Your task to perform on an android device: Clear the cart on costco. Add beats solo 3 to the cart on costco, then select checkout. Image 0: 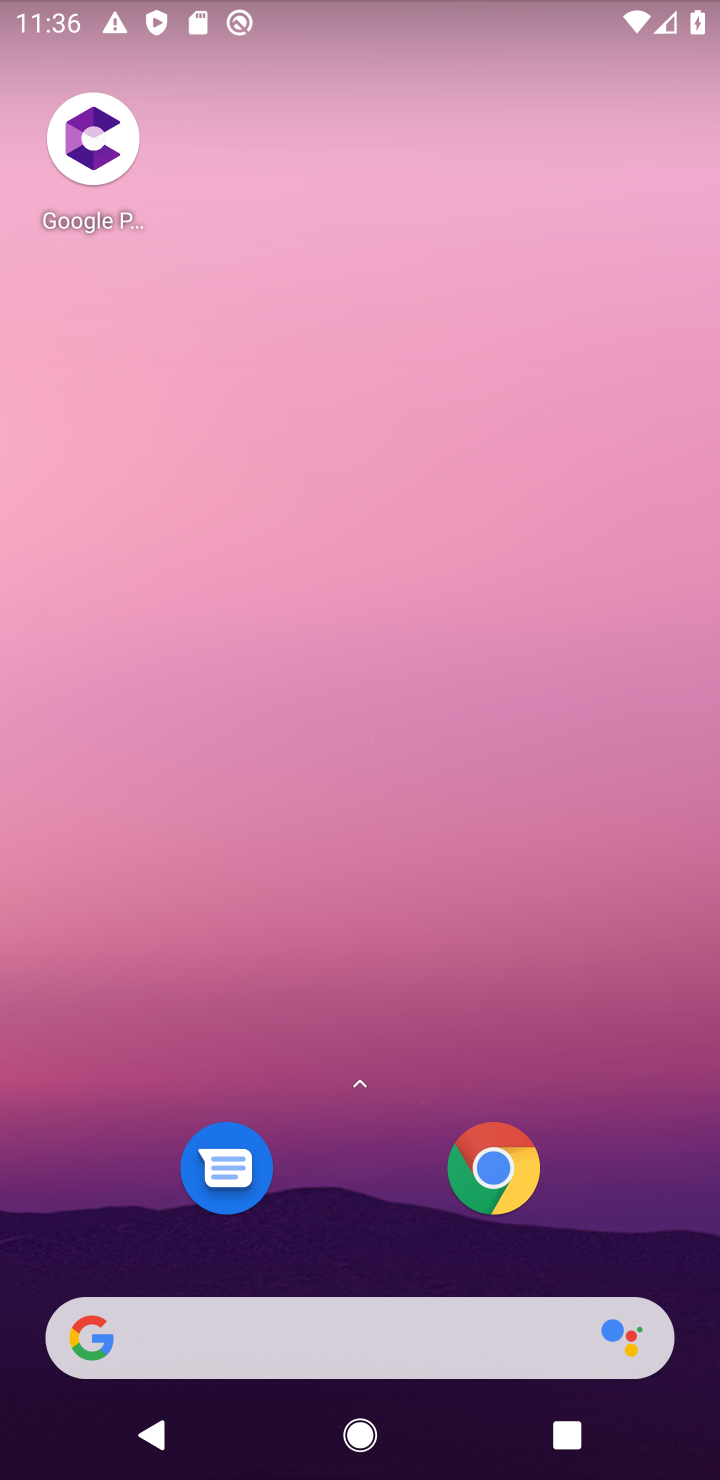
Step 0: drag from (422, 1172) to (380, 58)
Your task to perform on an android device: Clear the cart on costco. Add beats solo 3 to the cart on costco, then select checkout. Image 1: 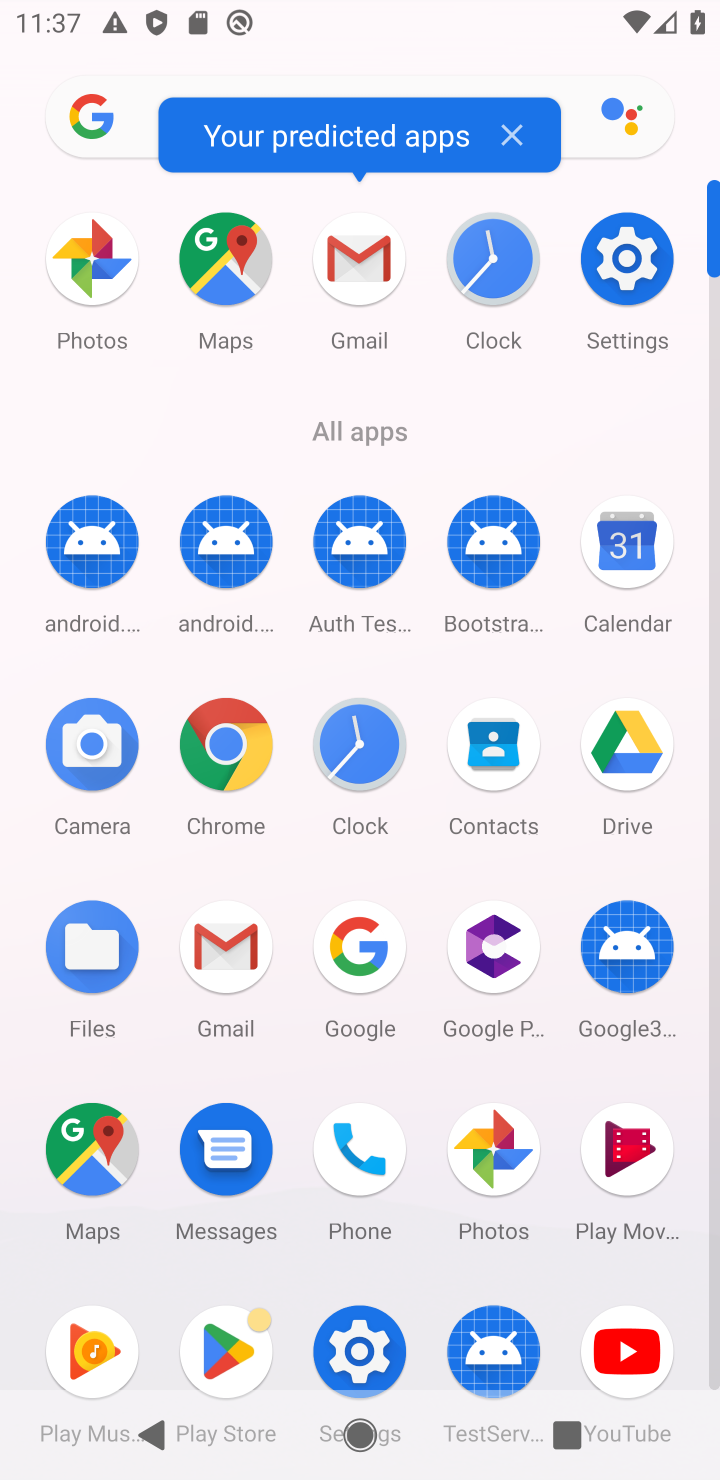
Step 1: click (217, 747)
Your task to perform on an android device: Clear the cart on costco. Add beats solo 3 to the cart on costco, then select checkout. Image 2: 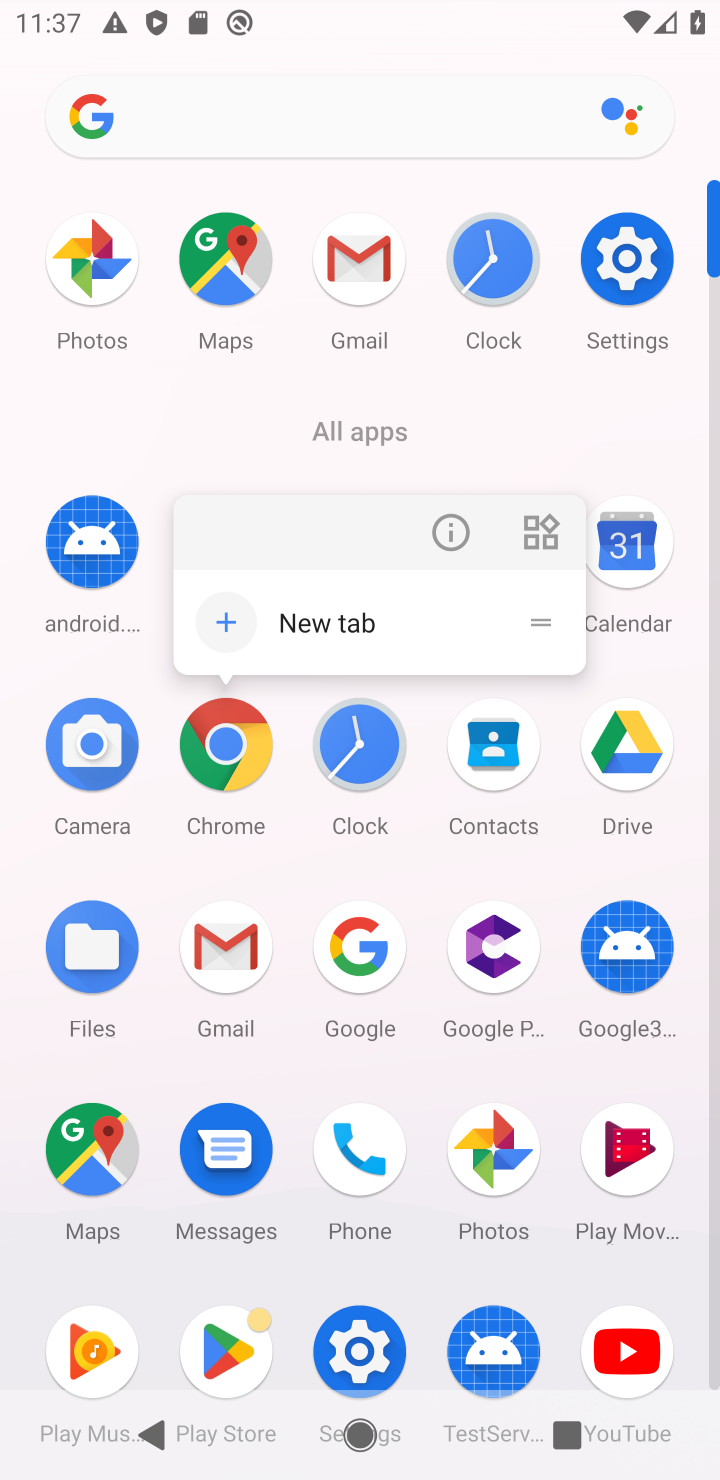
Step 2: click (228, 748)
Your task to perform on an android device: Clear the cart on costco. Add beats solo 3 to the cart on costco, then select checkout. Image 3: 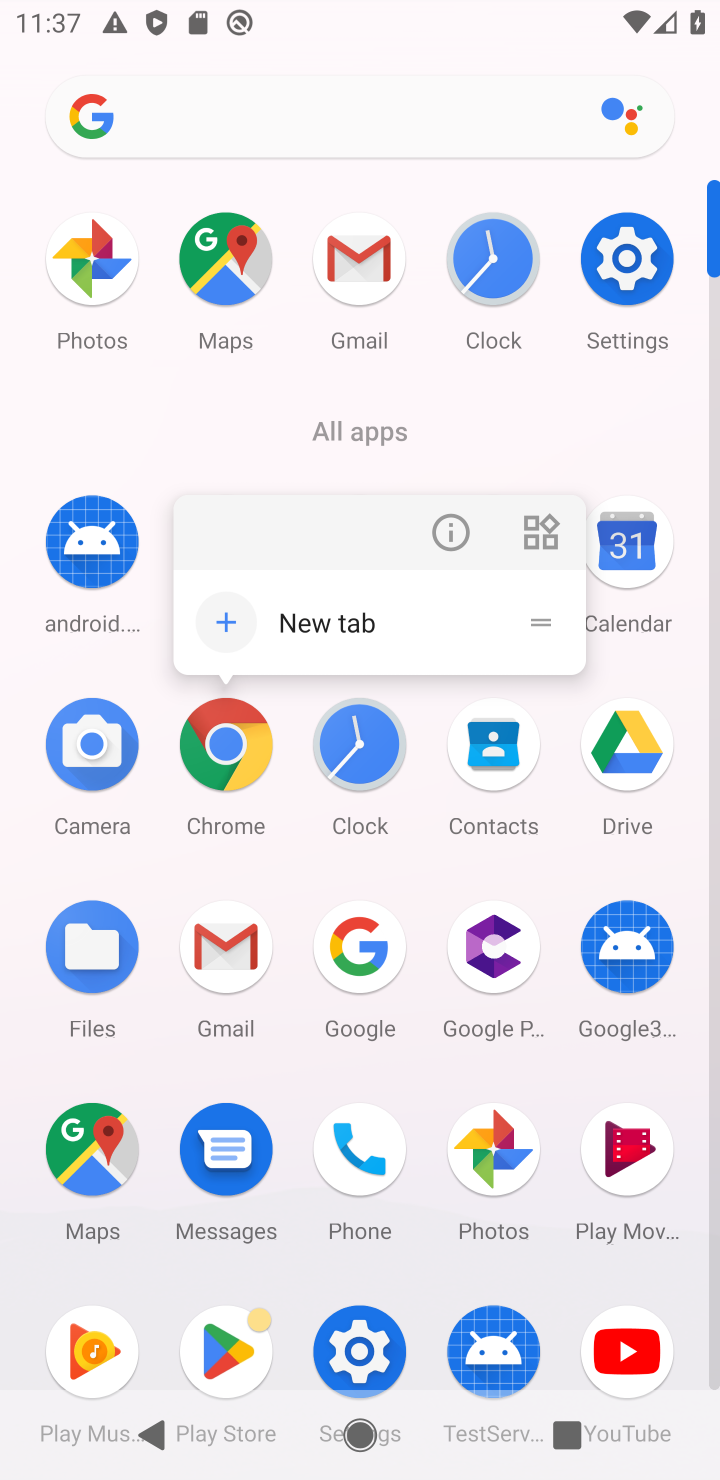
Step 3: click (232, 746)
Your task to perform on an android device: Clear the cart on costco. Add beats solo 3 to the cart on costco, then select checkout. Image 4: 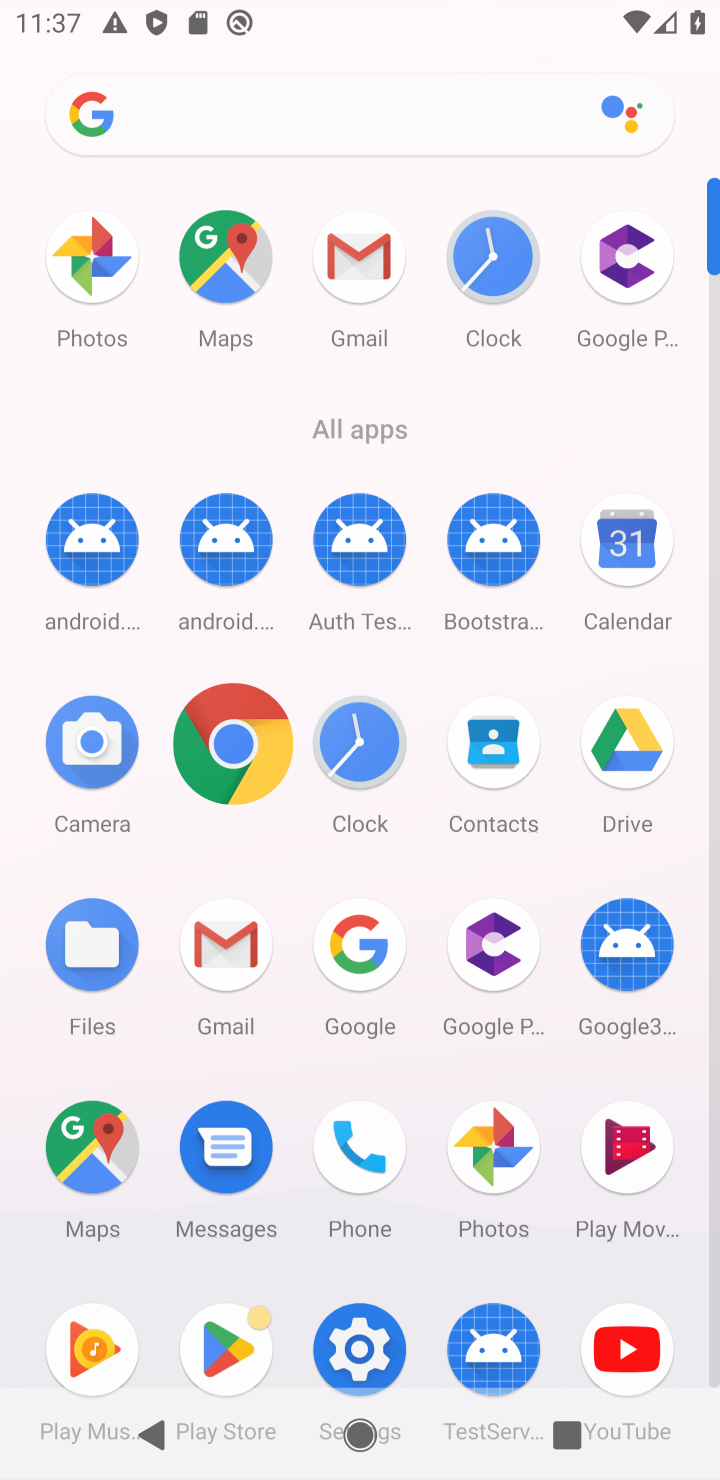
Step 4: click (217, 703)
Your task to perform on an android device: Clear the cart on costco. Add beats solo 3 to the cart on costco, then select checkout. Image 5: 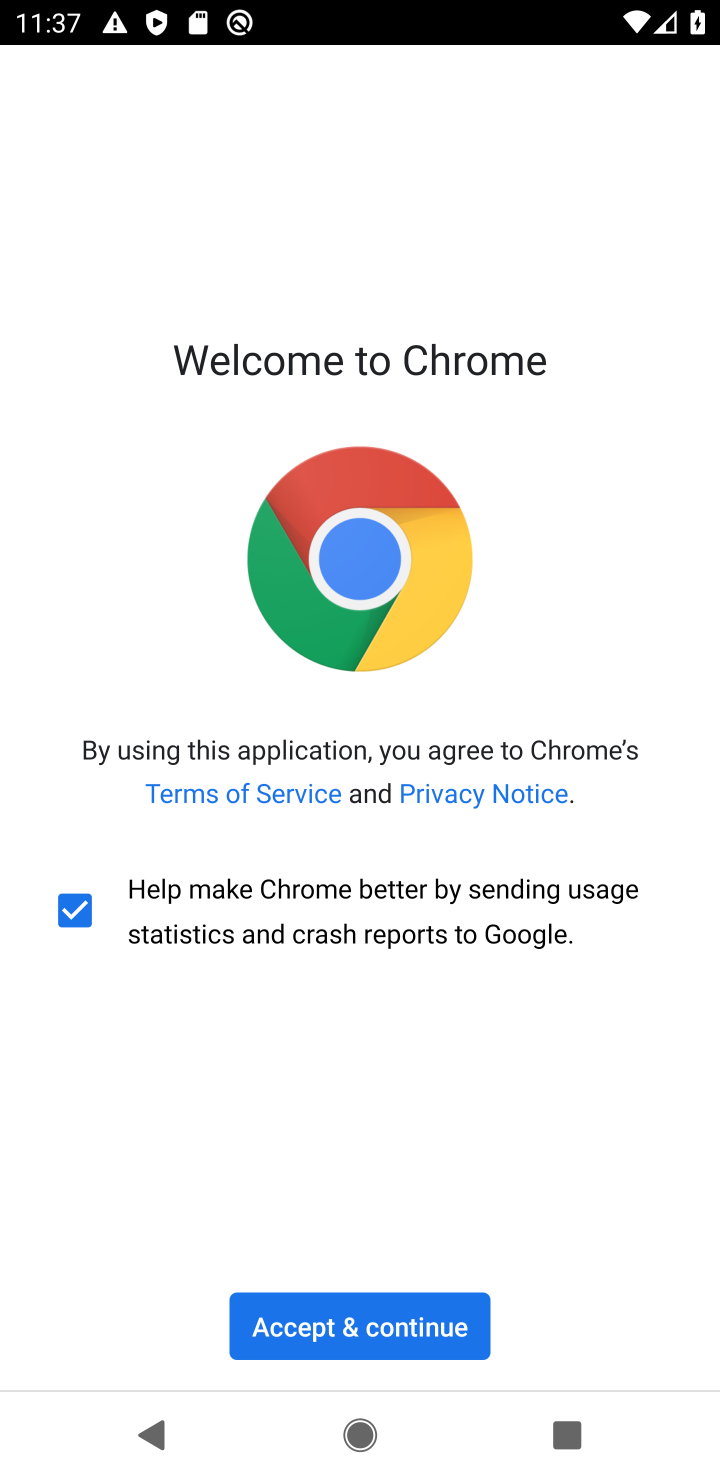
Step 5: click (409, 1313)
Your task to perform on an android device: Clear the cart on costco. Add beats solo 3 to the cart on costco, then select checkout. Image 6: 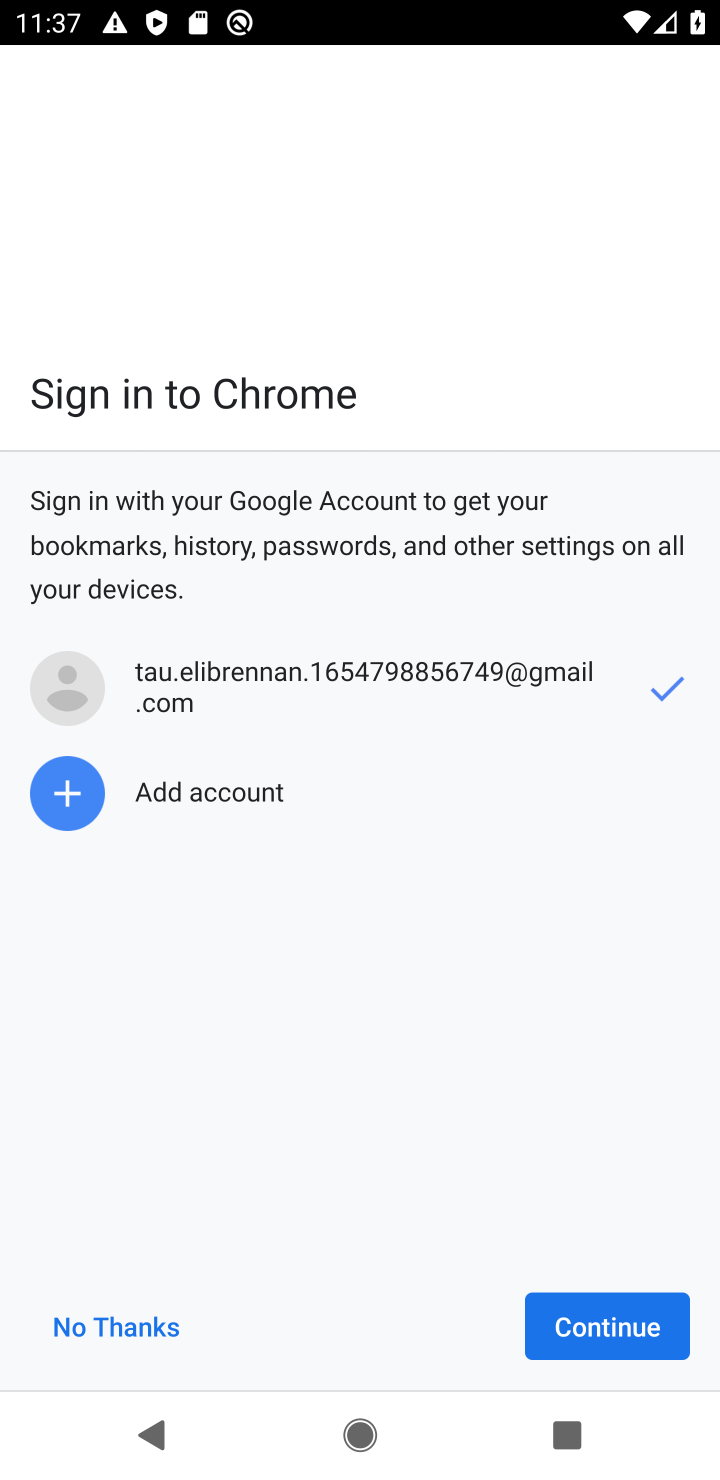
Step 6: click (609, 1319)
Your task to perform on an android device: Clear the cart on costco. Add beats solo 3 to the cart on costco, then select checkout. Image 7: 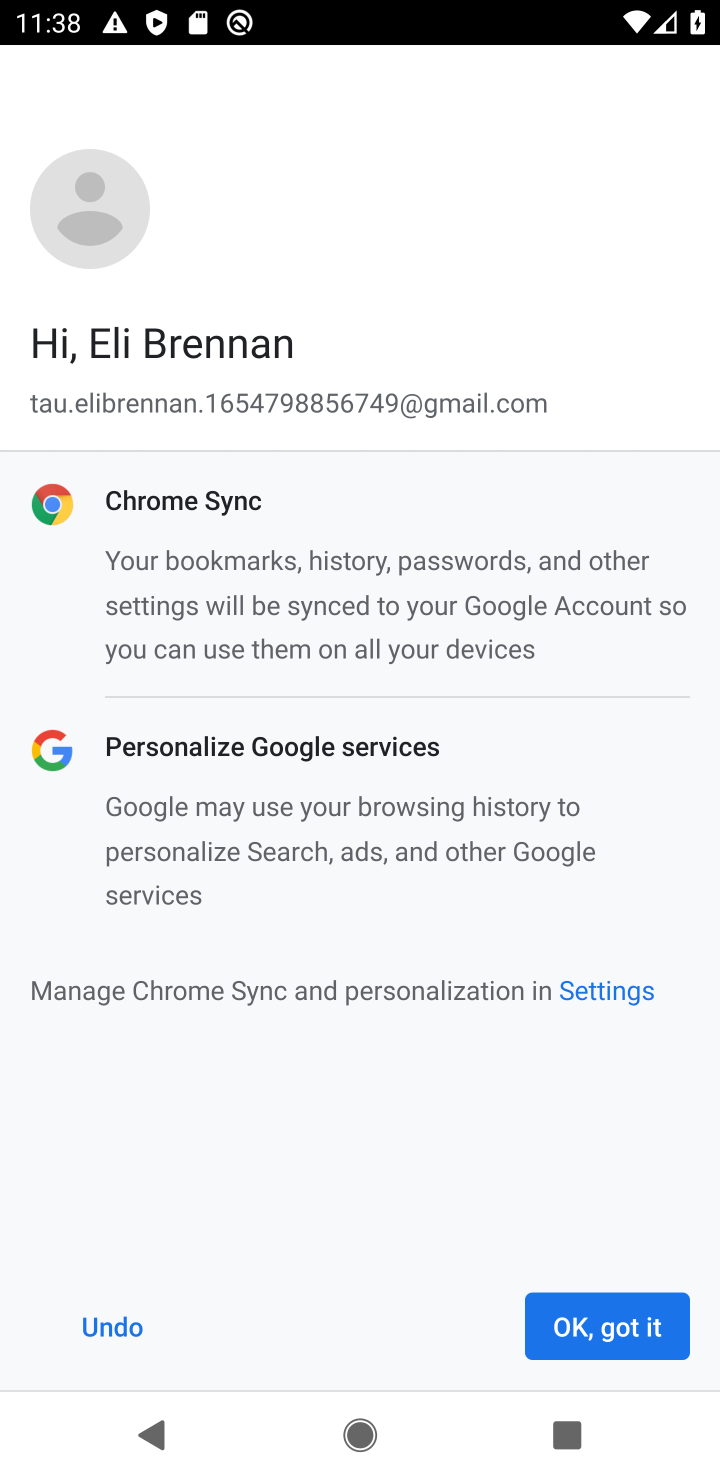
Step 7: click (641, 1312)
Your task to perform on an android device: Clear the cart on costco. Add beats solo 3 to the cart on costco, then select checkout. Image 8: 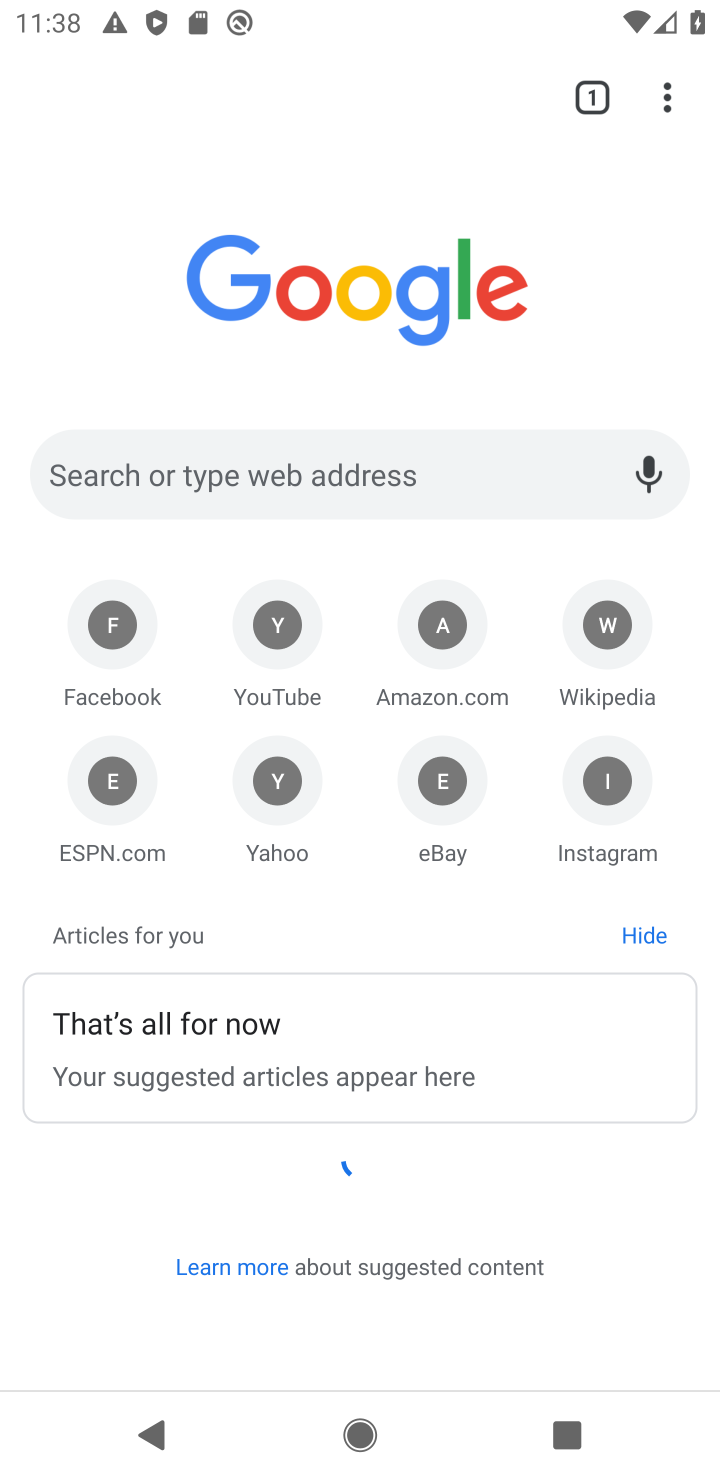
Step 8: click (337, 457)
Your task to perform on an android device: Clear the cart on costco. Add beats solo 3 to the cart on costco, then select checkout. Image 9: 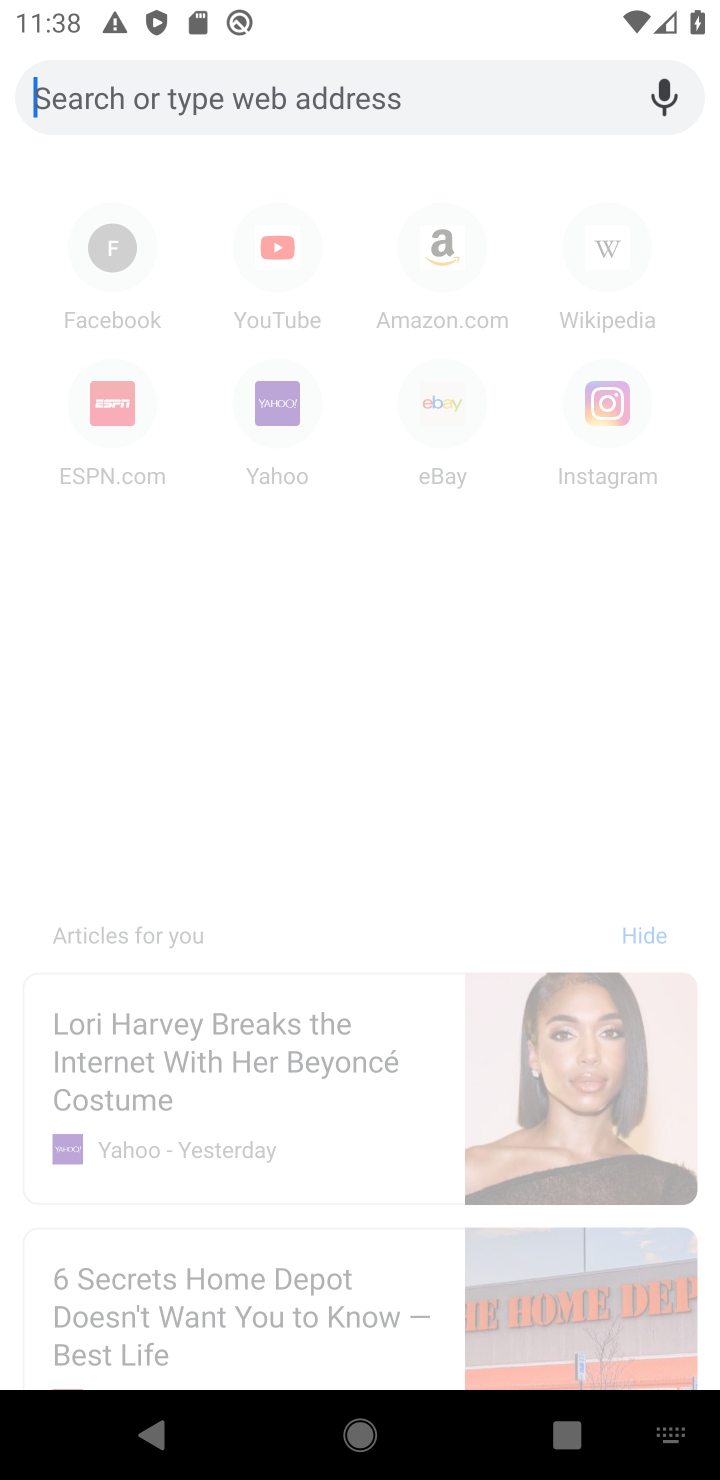
Step 9: type "costco"
Your task to perform on an android device: Clear the cart on costco. Add beats solo 3 to the cart on costco, then select checkout. Image 10: 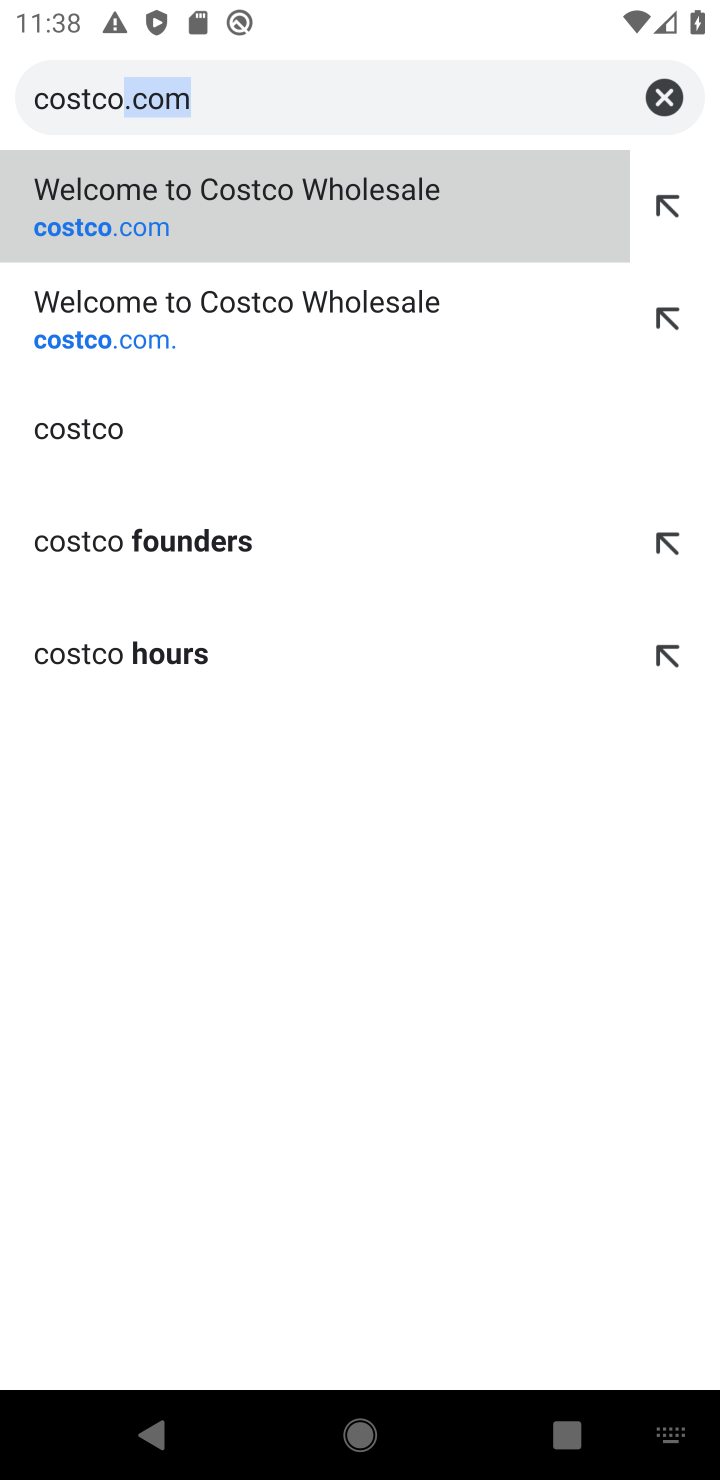
Step 10: click (86, 220)
Your task to perform on an android device: Clear the cart on costco. Add beats solo 3 to the cart on costco, then select checkout. Image 11: 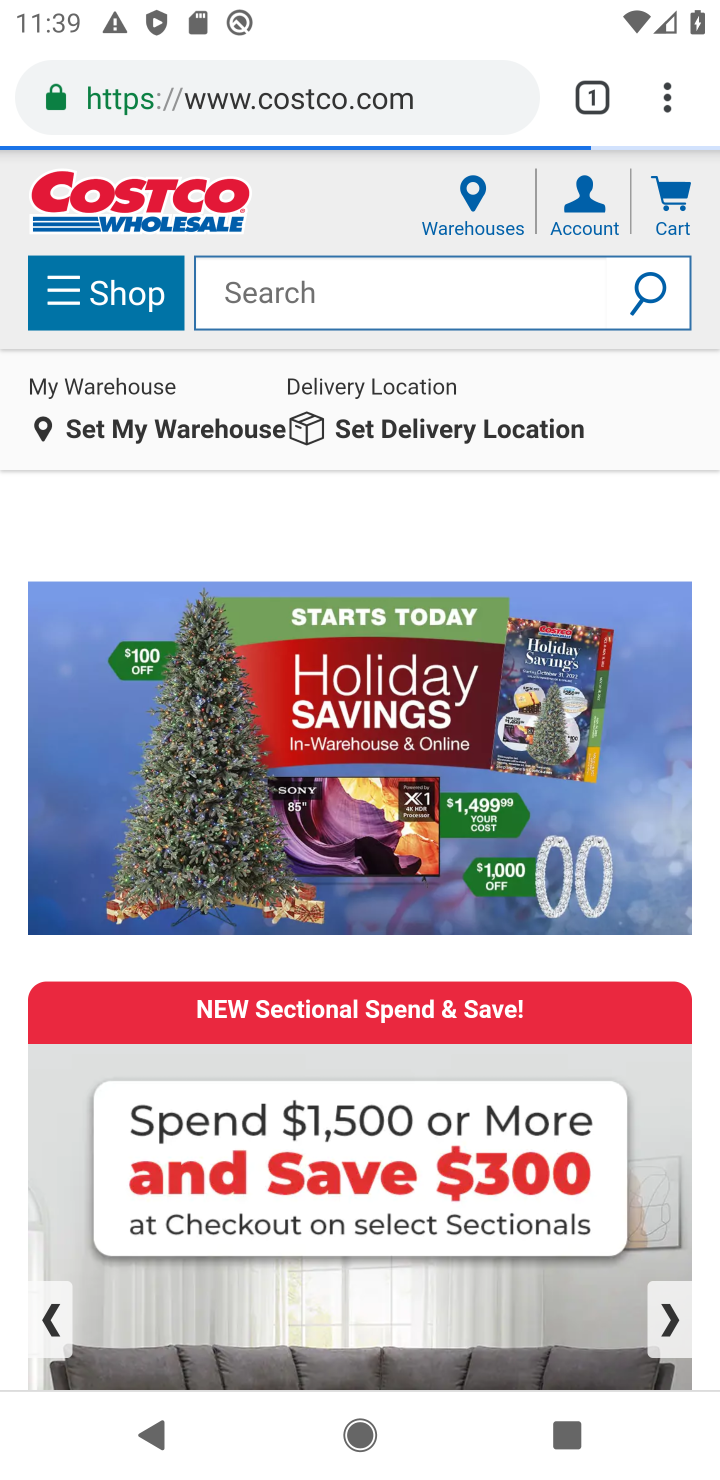
Step 11: click (255, 282)
Your task to perform on an android device: Clear the cart on costco. Add beats solo 3 to the cart on costco, then select checkout. Image 12: 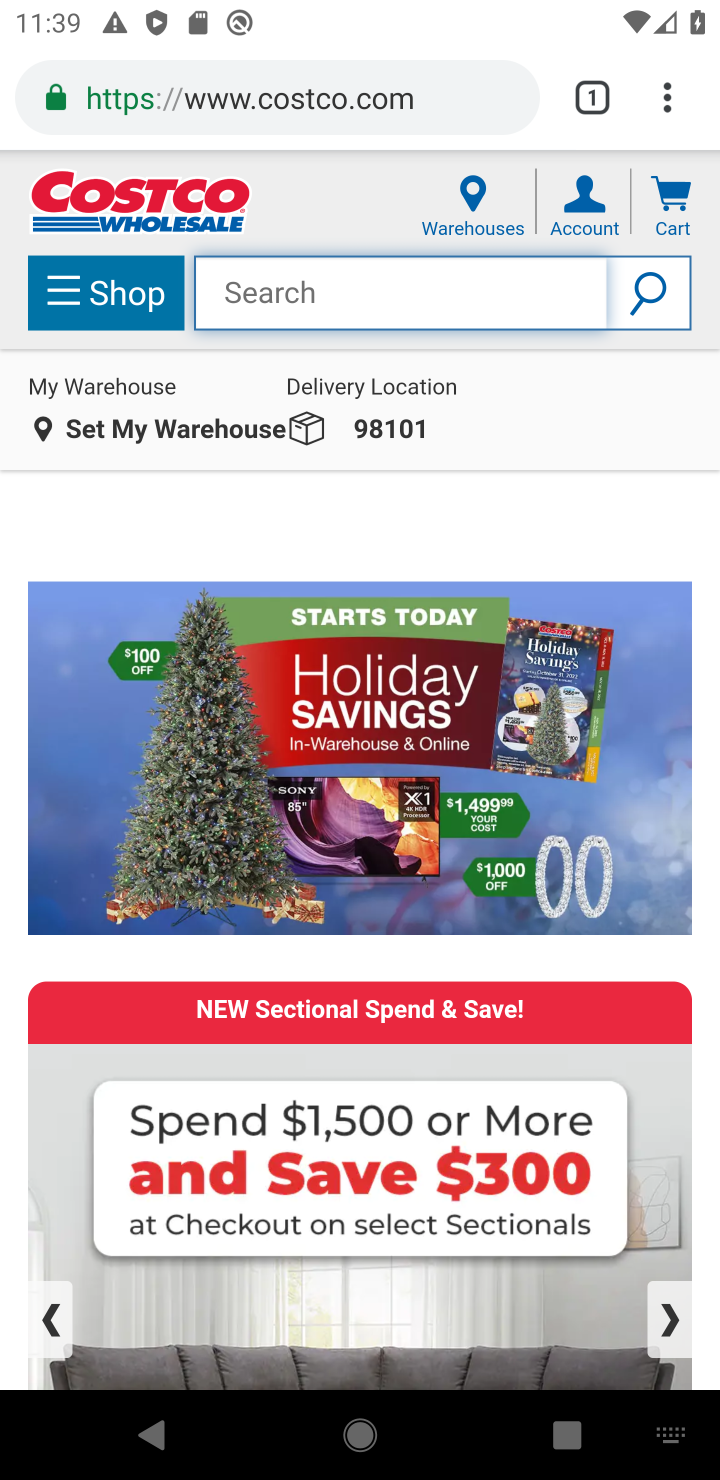
Step 12: click (672, 196)
Your task to perform on an android device: Clear the cart on costco. Add beats solo 3 to the cart on costco, then select checkout. Image 13: 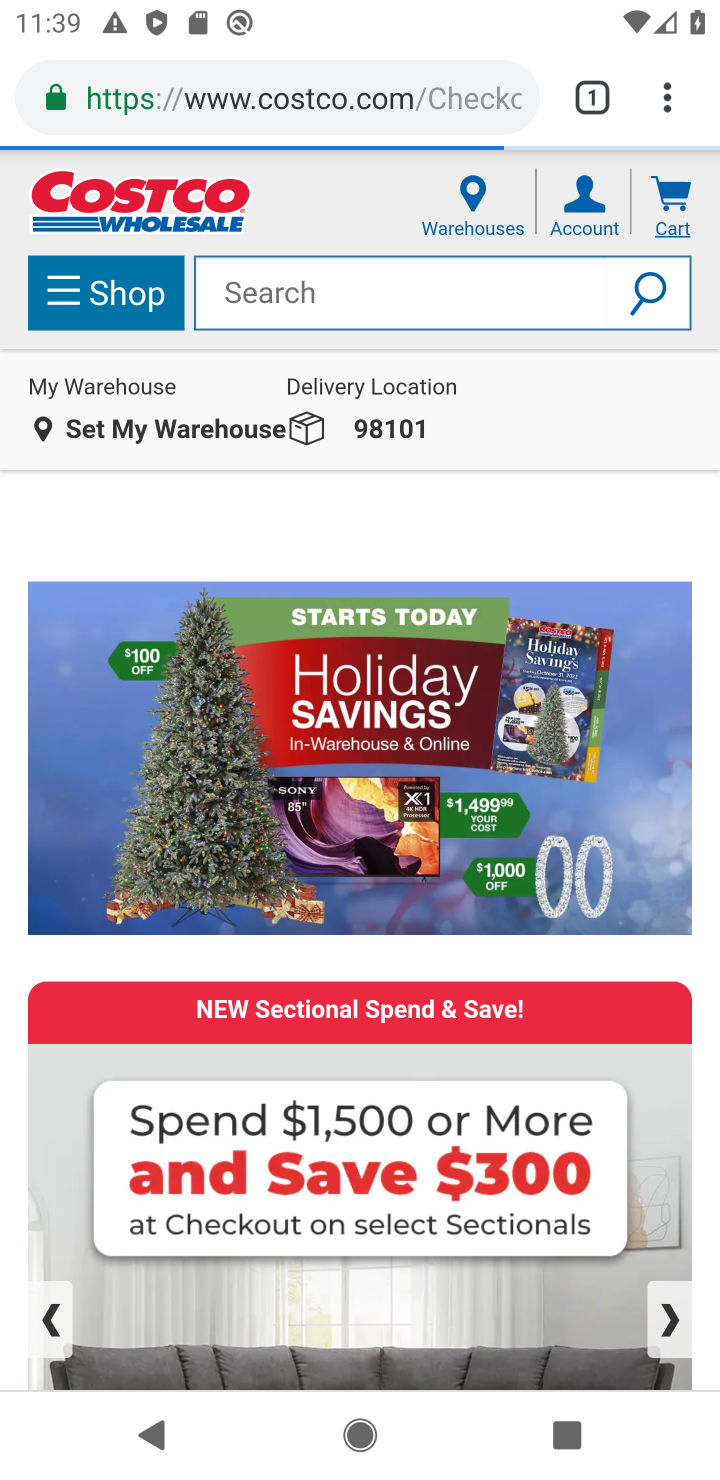
Step 13: click (667, 183)
Your task to perform on an android device: Clear the cart on costco. Add beats solo 3 to the cart on costco, then select checkout. Image 14: 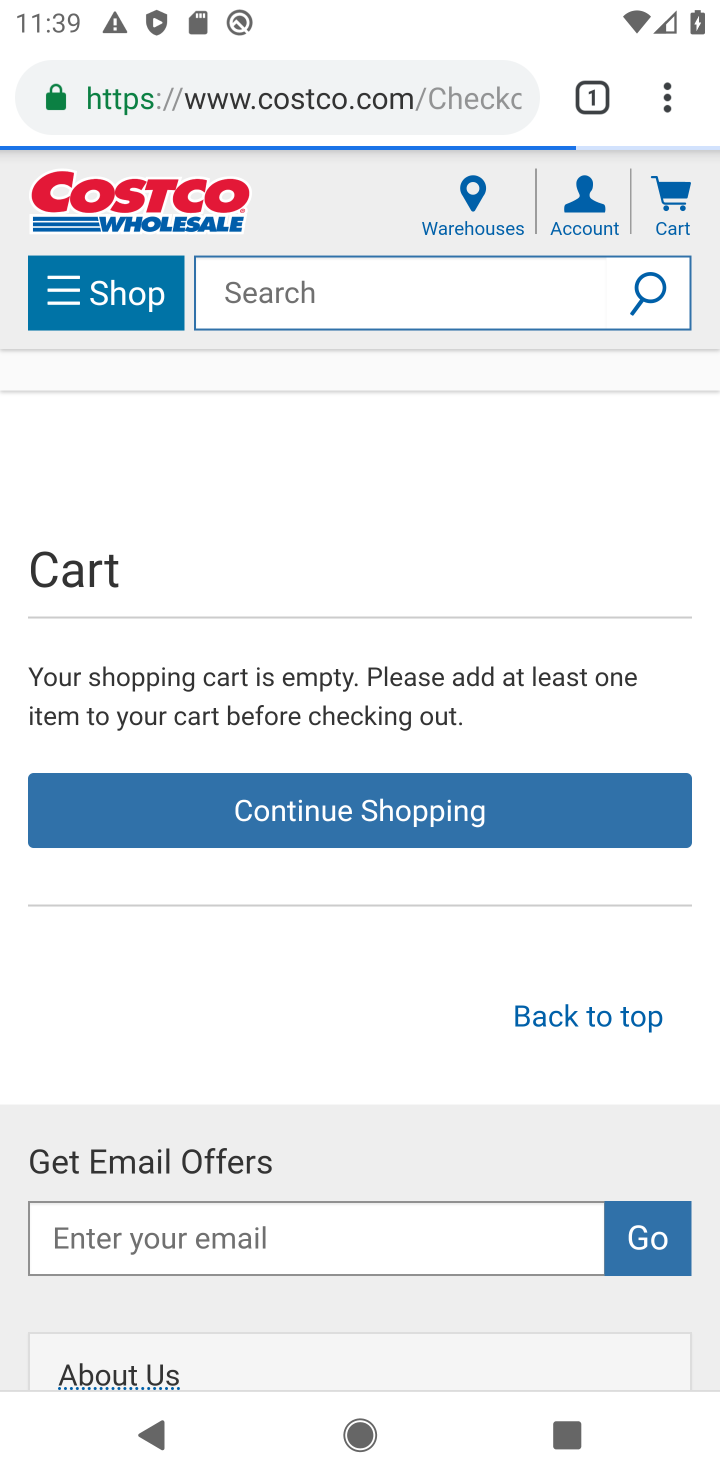
Step 14: drag from (433, 1007) to (535, 328)
Your task to perform on an android device: Clear the cart on costco. Add beats solo 3 to the cart on costco, then select checkout. Image 15: 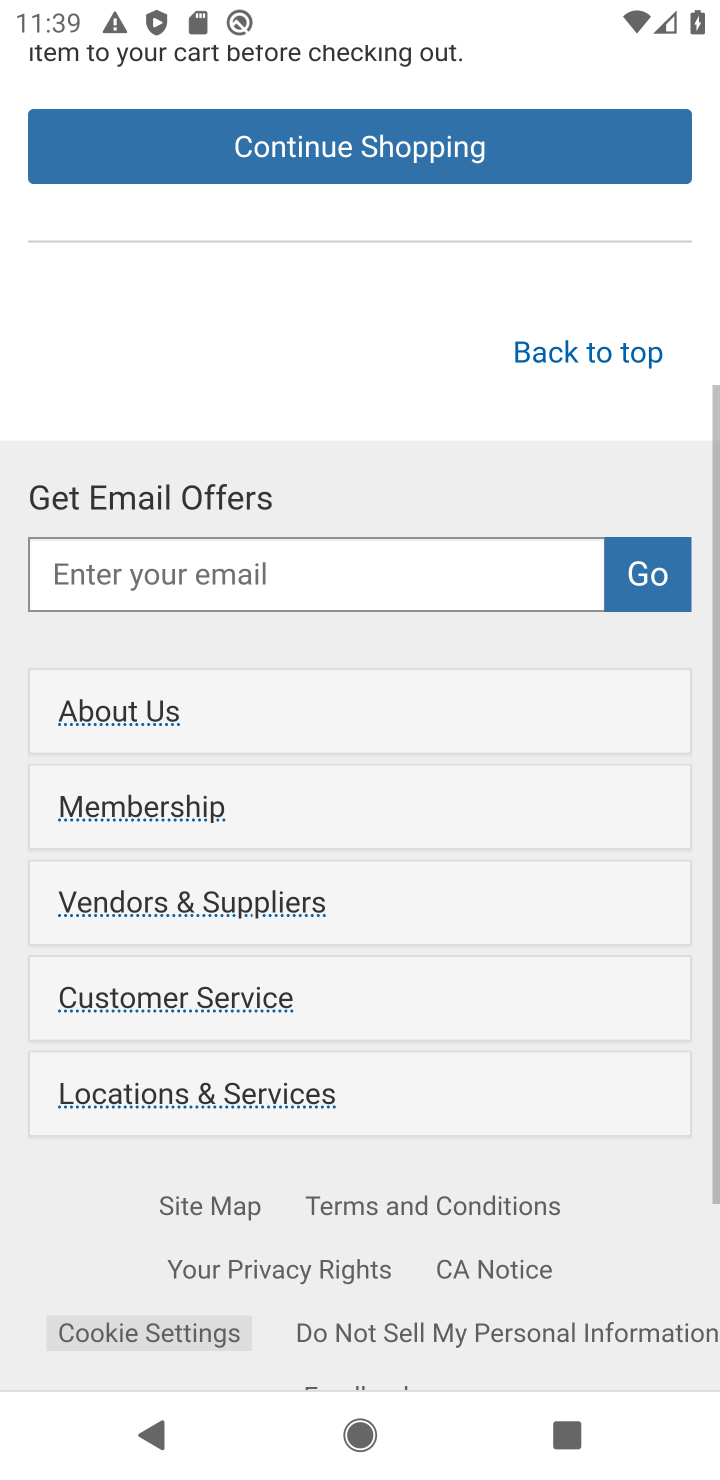
Step 15: click (451, 199)
Your task to perform on an android device: Clear the cart on costco. Add beats solo 3 to the cart on costco, then select checkout. Image 16: 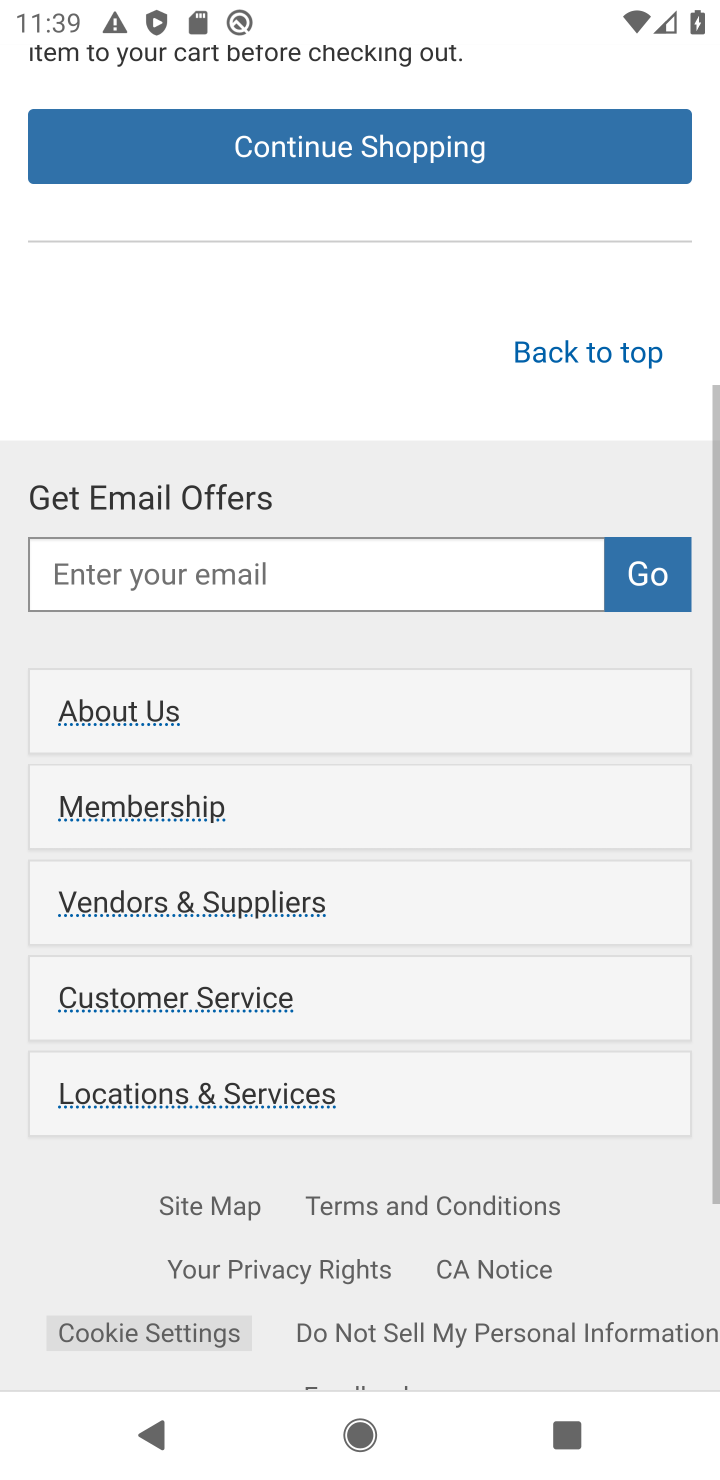
Step 16: drag from (449, 199) to (321, 1173)
Your task to perform on an android device: Clear the cart on costco. Add beats solo 3 to the cart on costco, then select checkout. Image 17: 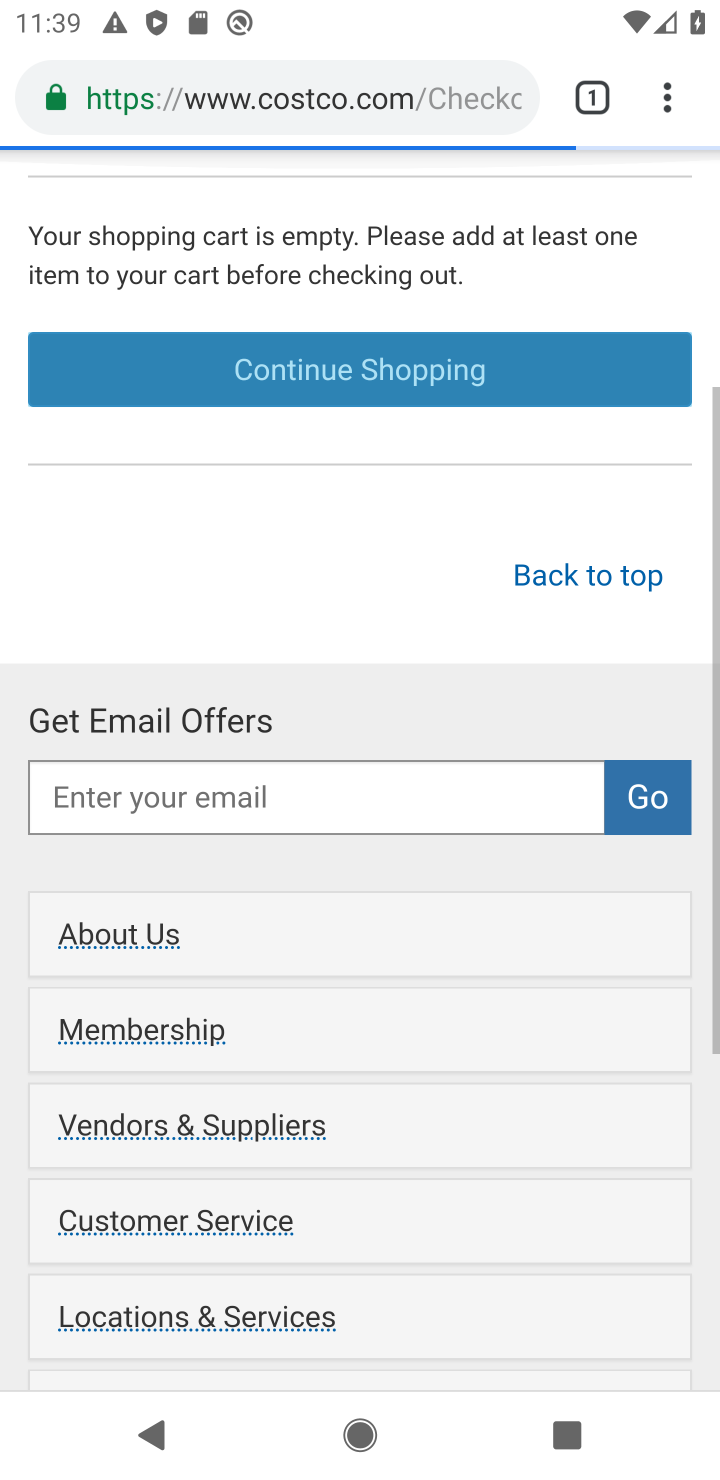
Step 17: drag from (461, 292) to (419, 1281)
Your task to perform on an android device: Clear the cart on costco. Add beats solo 3 to the cart on costco, then select checkout. Image 18: 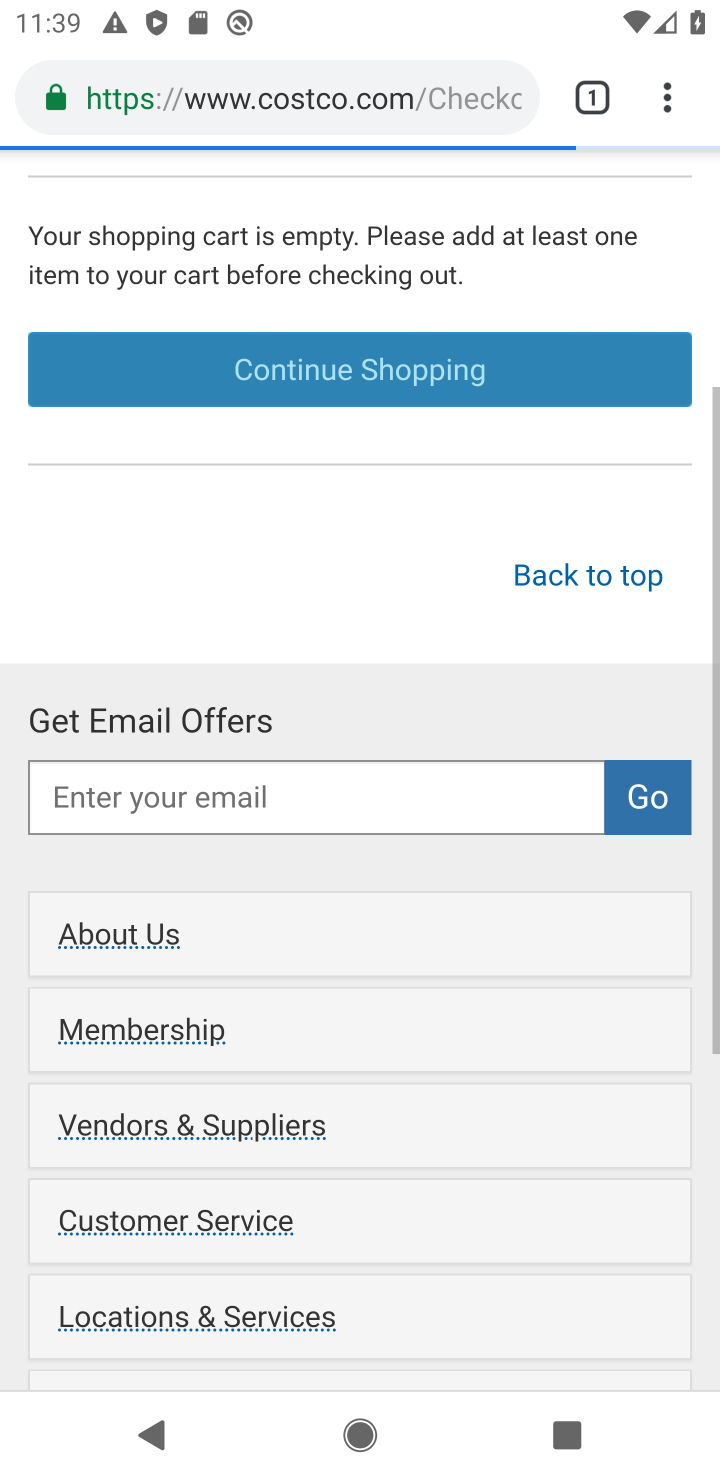
Step 18: press back button
Your task to perform on an android device: Clear the cart on costco. Add beats solo 3 to the cart on costco, then select checkout. Image 19: 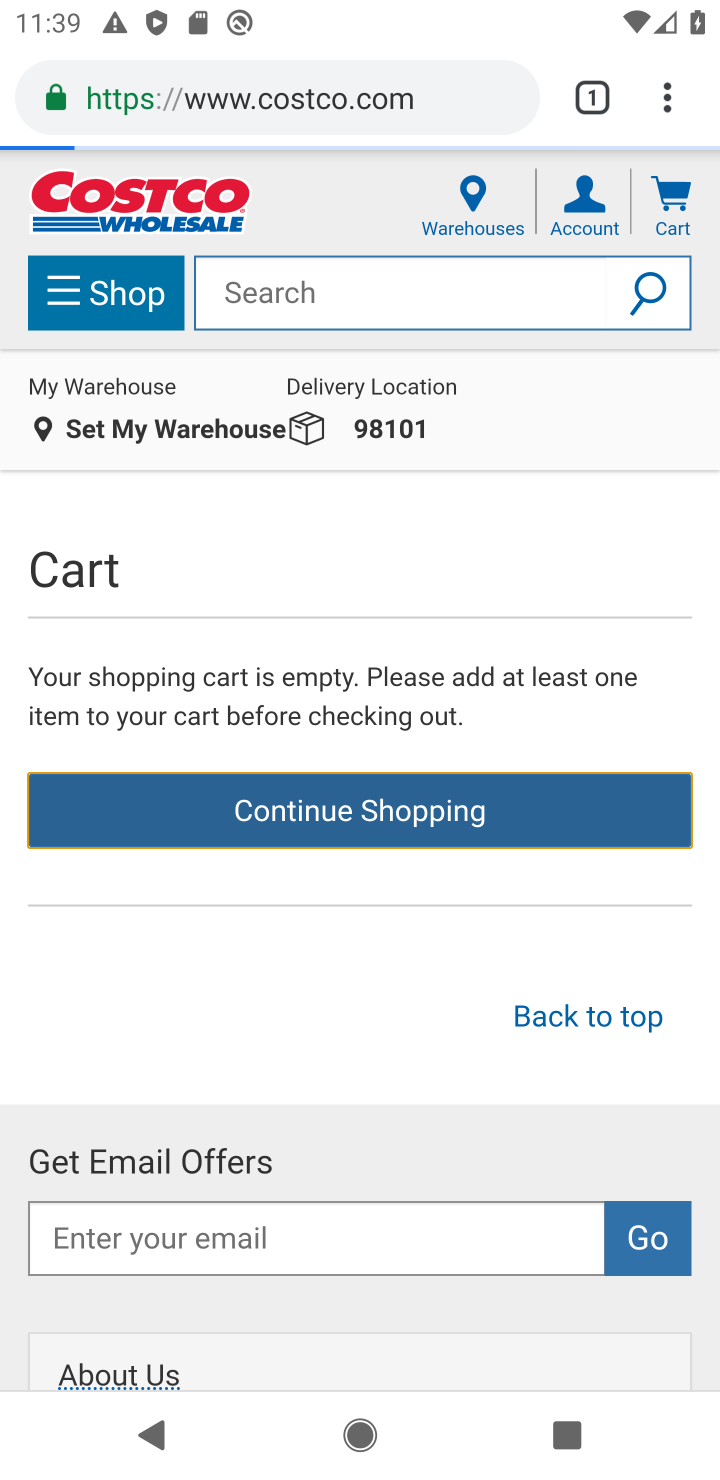
Step 19: click (257, 290)
Your task to perform on an android device: Clear the cart on costco. Add beats solo 3 to the cart on costco, then select checkout. Image 20: 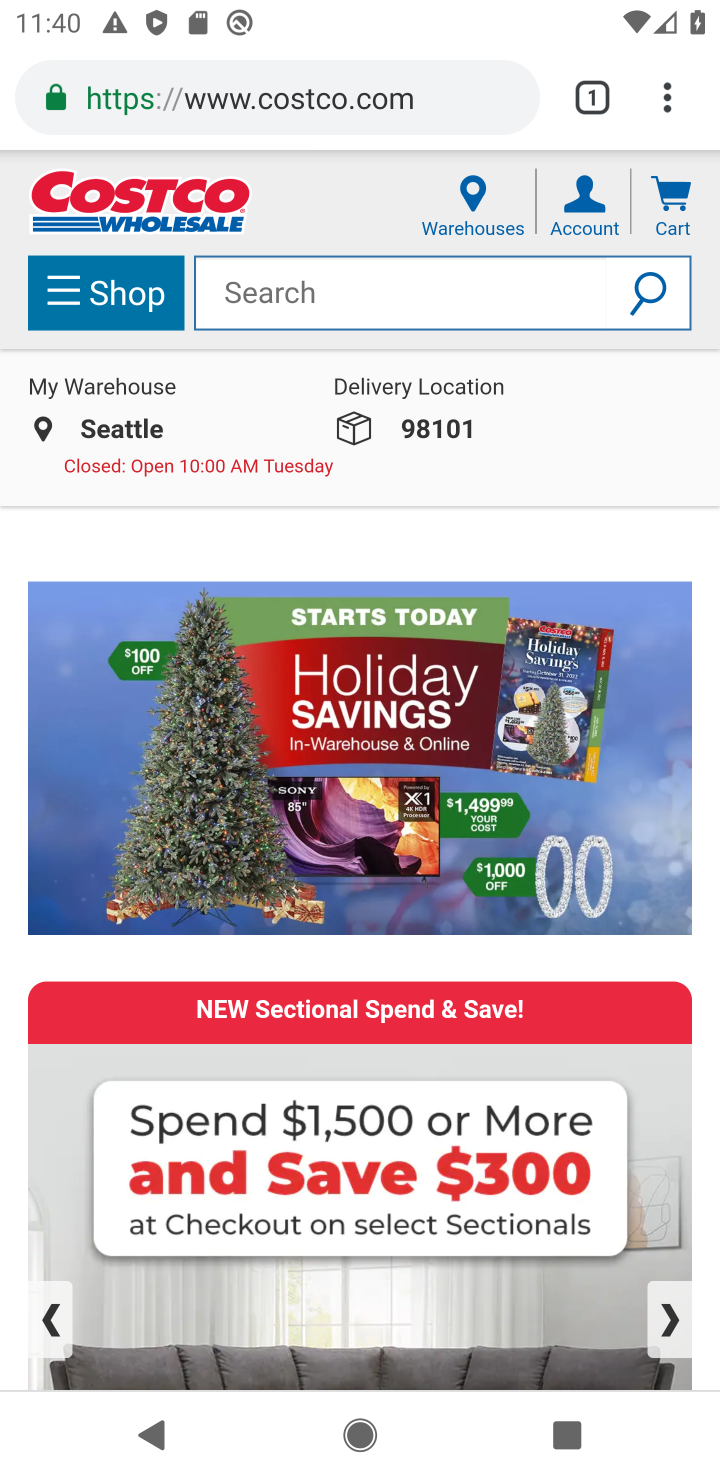
Step 20: click (394, 291)
Your task to perform on an android device: Clear the cart on costco. Add beats solo 3 to the cart on costco, then select checkout. Image 21: 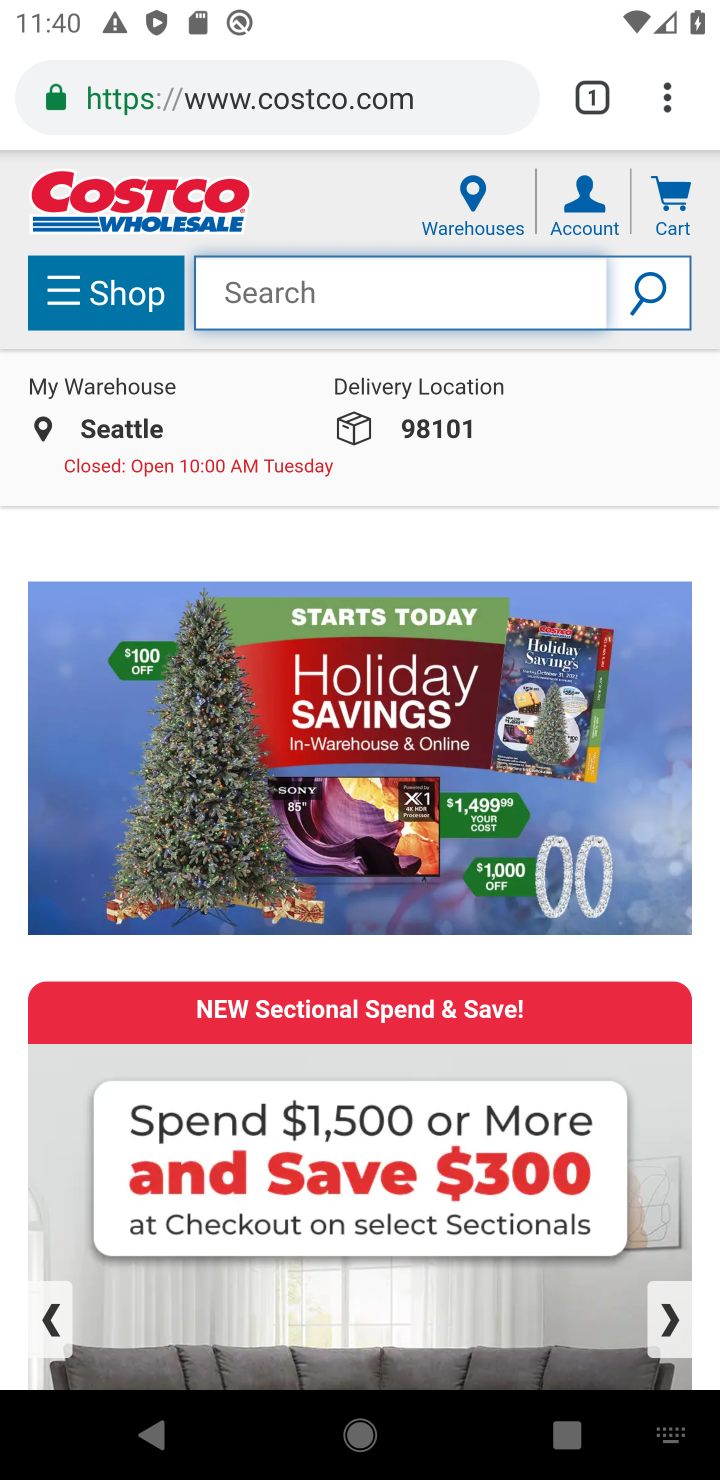
Step 21: type "beats solo 3 "
Your task to perform on an android device: Clear the cart on costco. Add beats solo 3 to the cart on costco, then select checkout. Image 22: 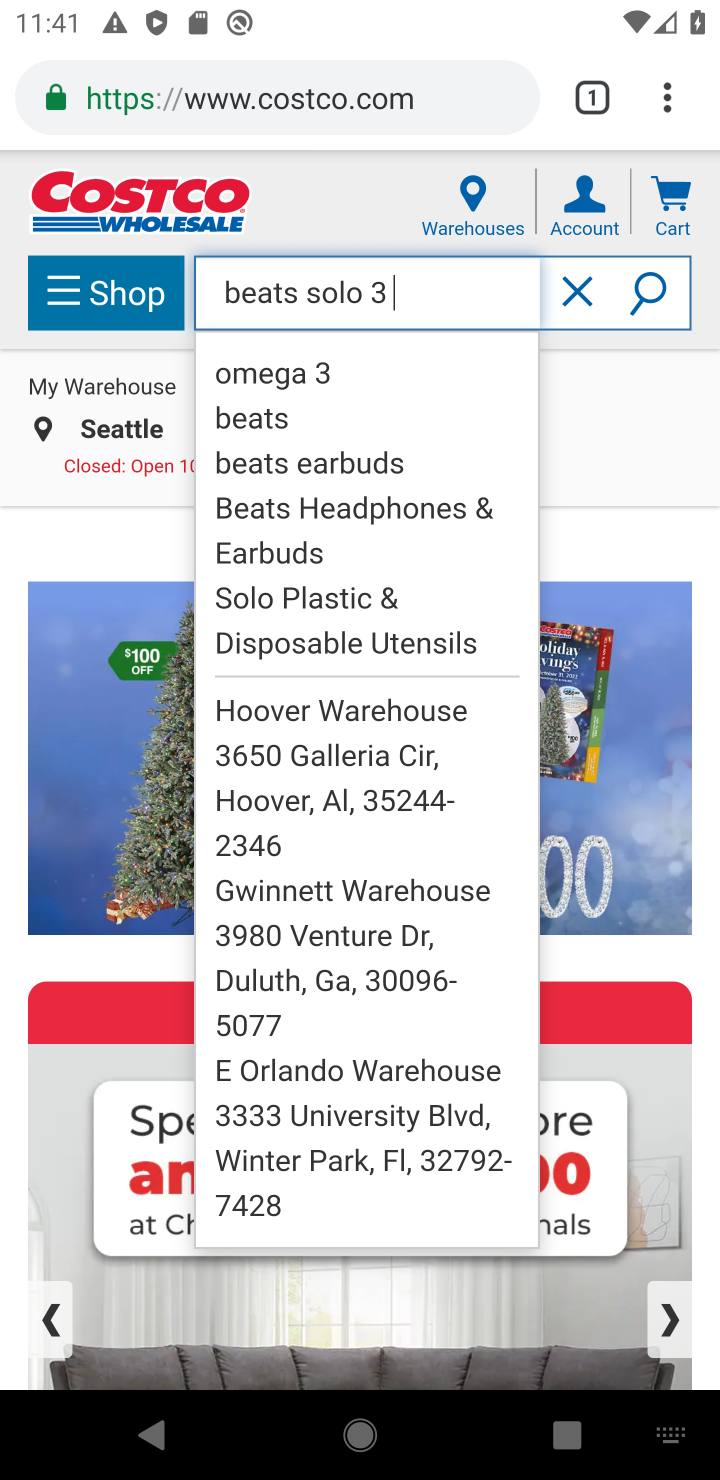
Step 22: click (651, 282)
Your task to perform on an android device: Clear the cart on costco. Add beats solo 3 to the cart on costco, then select checkout. Image 23: 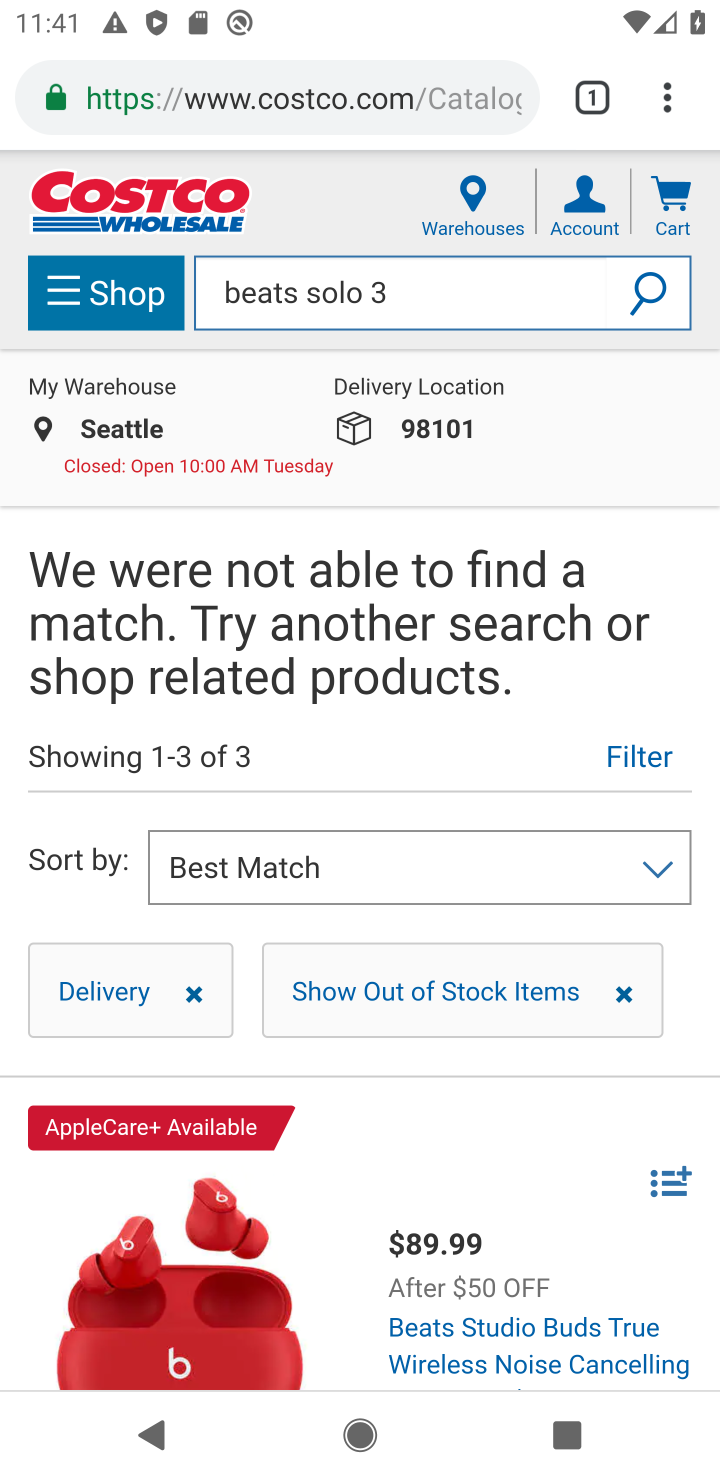
Step 23: task complete